Your task to perform on an android device: Turn on the flashlight Image 0: 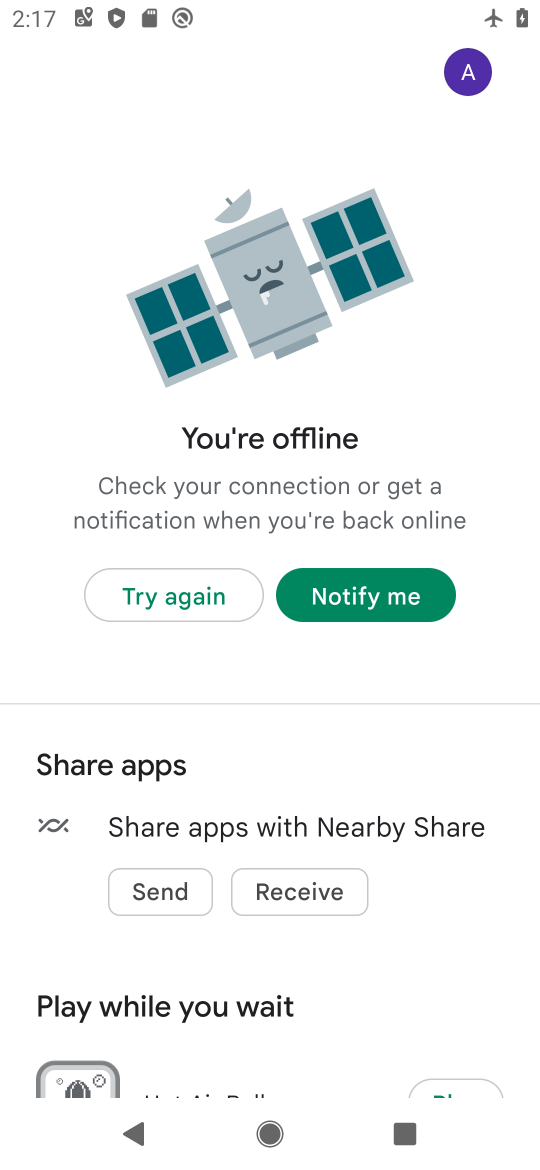
Step 0: press home button
Your task to perform on an android device: Turn on the flashlight Image 1: 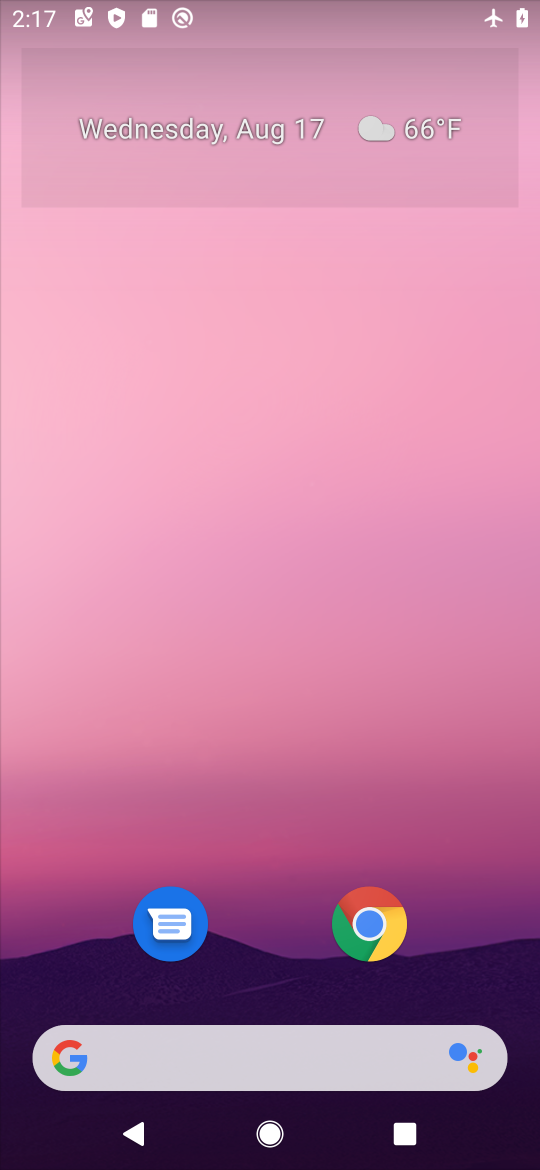
Step 1: drag from (252, 1057) to (129, 296)
Your task to perform on an android device: Turn on the flashlight Image 2: 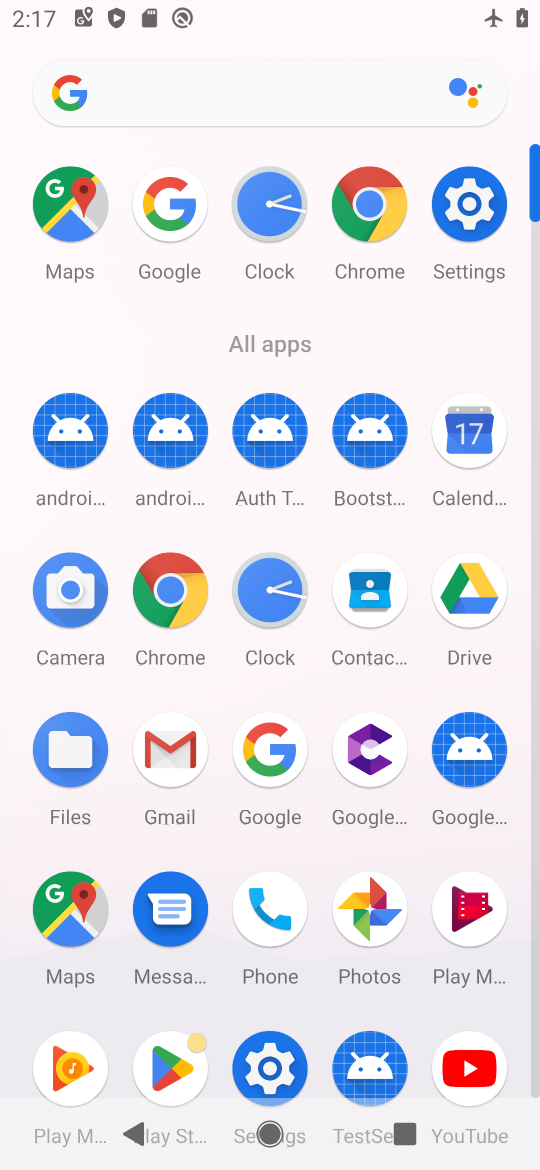
Step 2: click (478, 210)
Your task to perform on an android device: Turn on the flashlight Image 3: 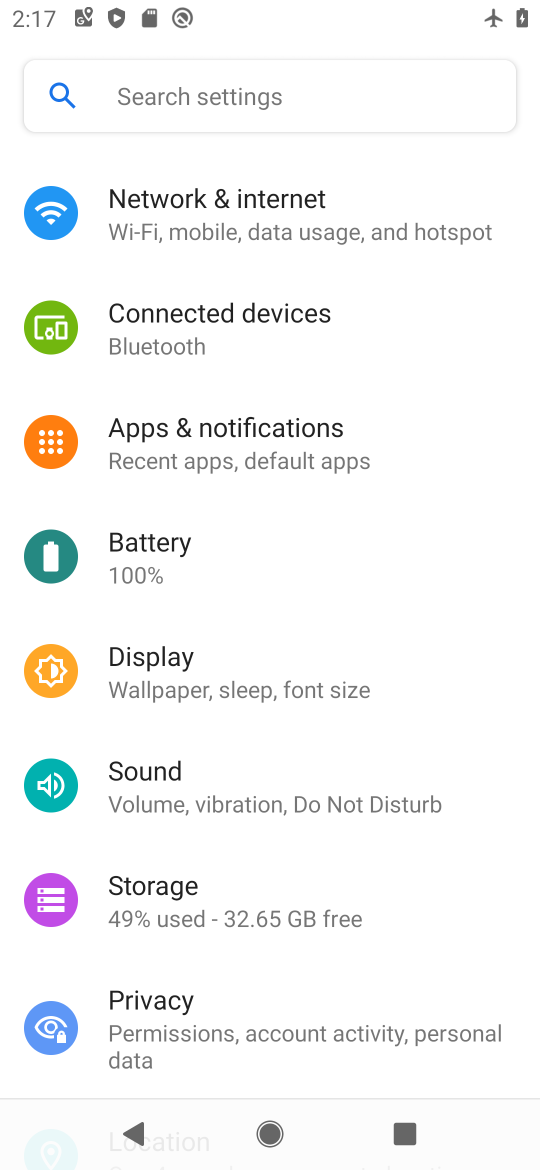
Step 3: drag from (215, 957) to (295, 798)
Your task to perform on an android device: Turn on the flashlight Image 4: 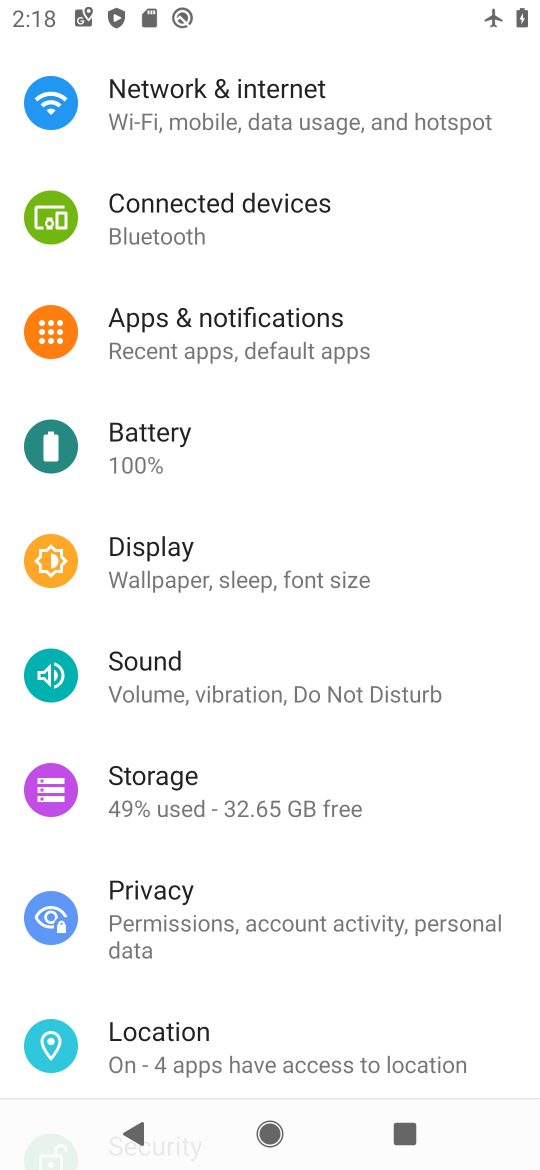
Step 4: click (174, 452)
Your task to perform on an android device: Turn on the flashlight Image 5: 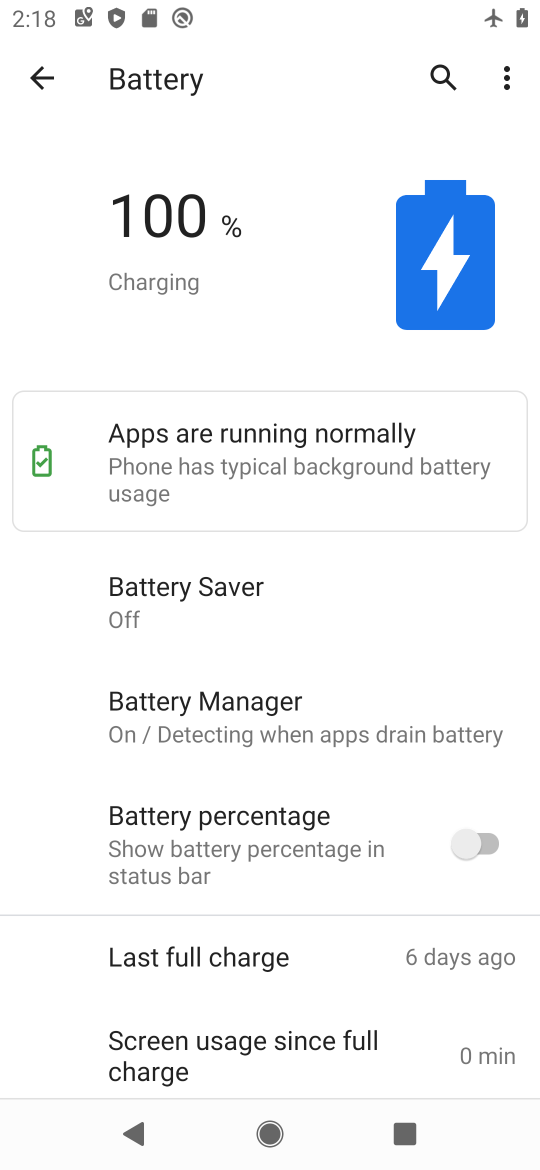
Step 5: drag from (290, 864) to (356, 683)
Your task to perform on an android device: Turn on the flashlight Image 6: 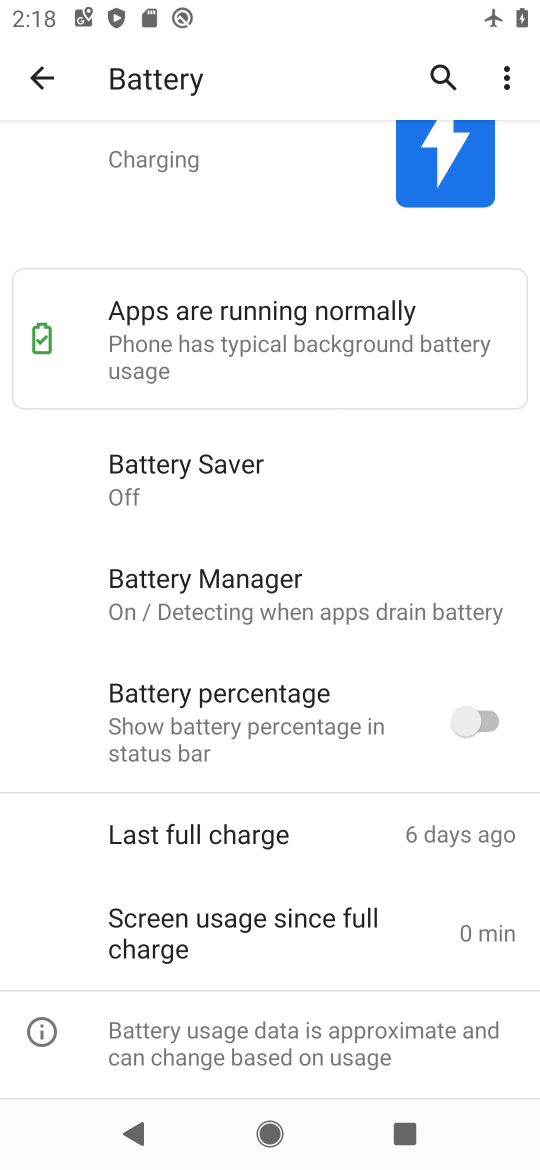
Step 6: drag from (238, 950) to (224, 809)
Your task to perform on an android device: Turn on the flashlight Image 7: 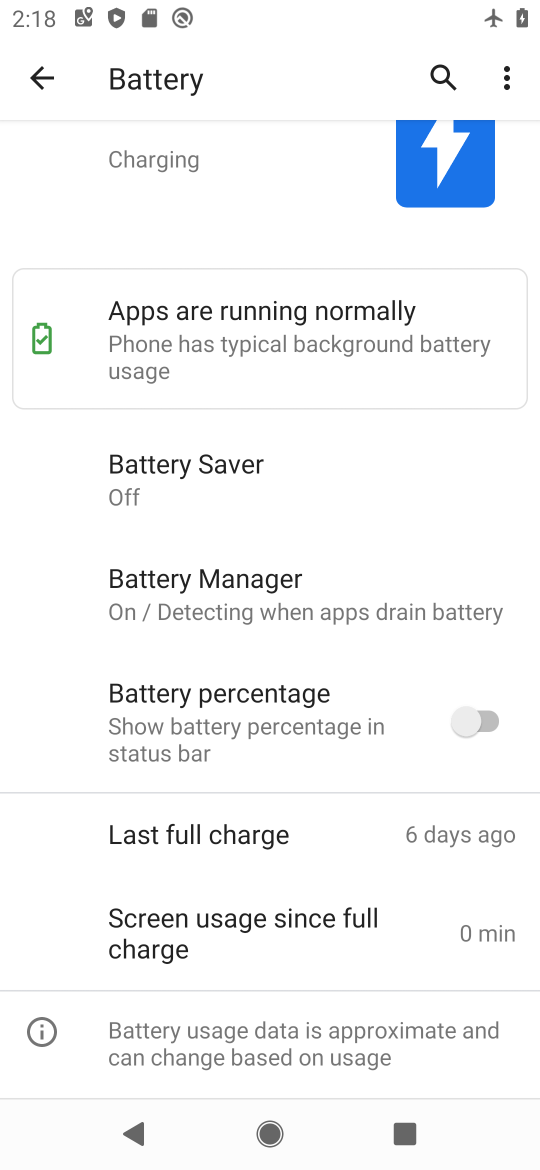
Step 7: press back button
Your task to perform on an android device: Turn on the flashlight Image 8: 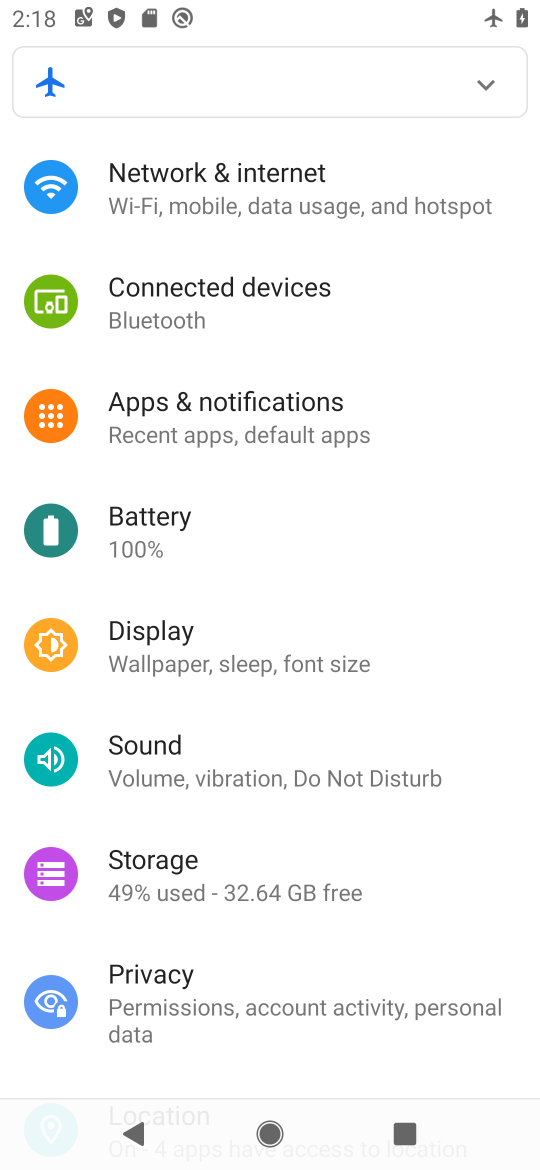
Step 8: drag from (191, 195) to (236, 351)
Your task to perform on an android device: Turn on the flashlight Image 9: 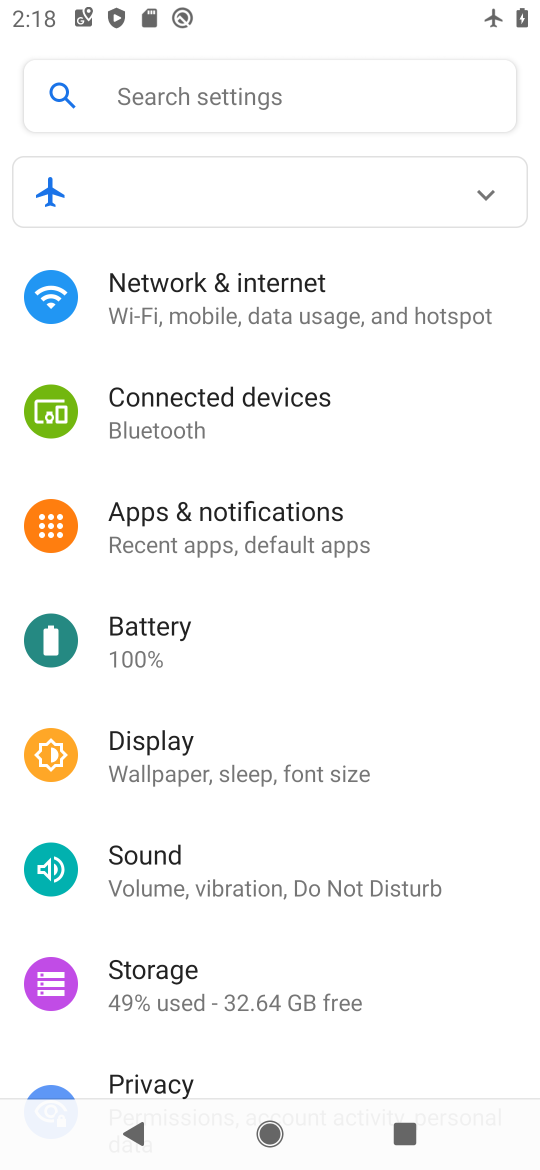
Step 9: click (170, 748)
Your task to perform on an android device: Turn on the flashlight Image 10: 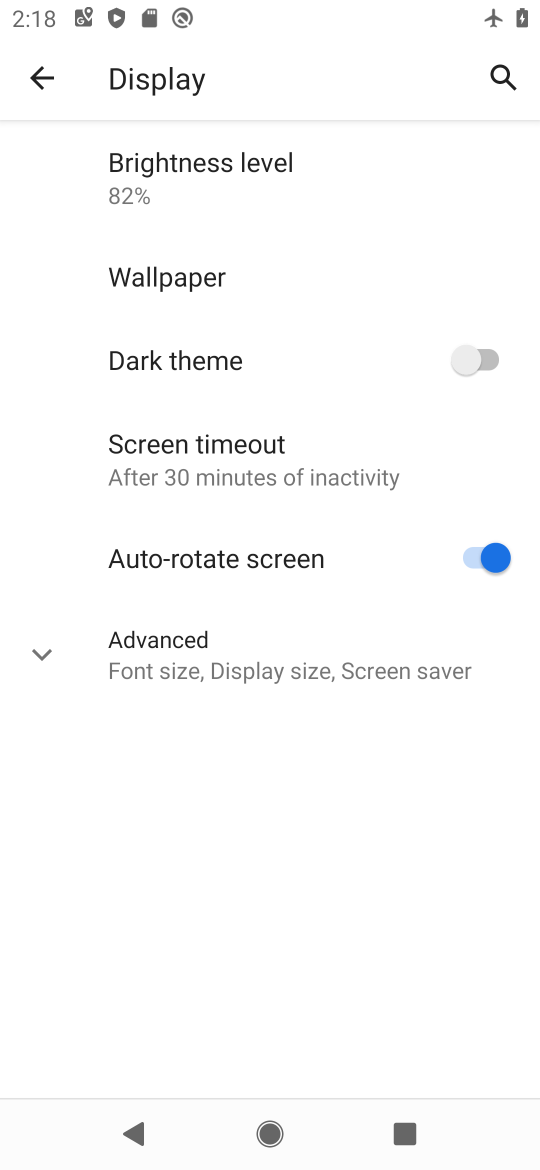
Step 10: click (216, 469)
Your task to perform on an android device: Turn on the flashlight Image 11: 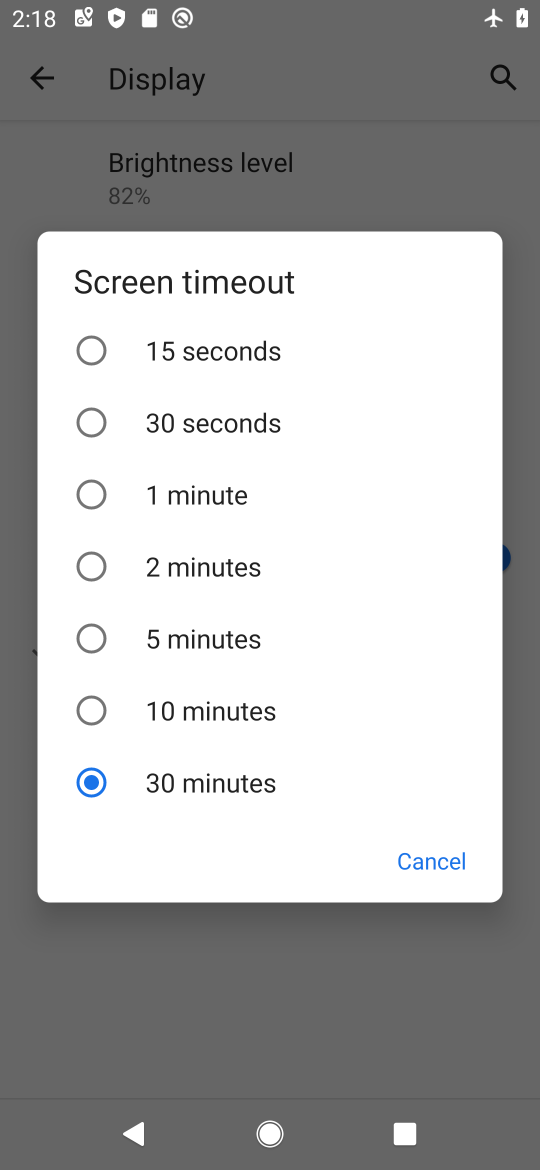
Step 11: task complete